Your task to perform on an android device: toggle notification dots Image 0: 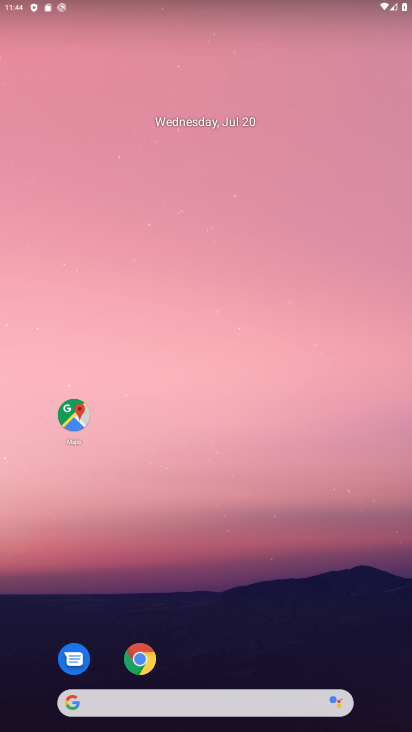
Step 0: drag from (199, 354) to (205, 3)
Your task to perform on an android device: toggle notification dots Image 1: 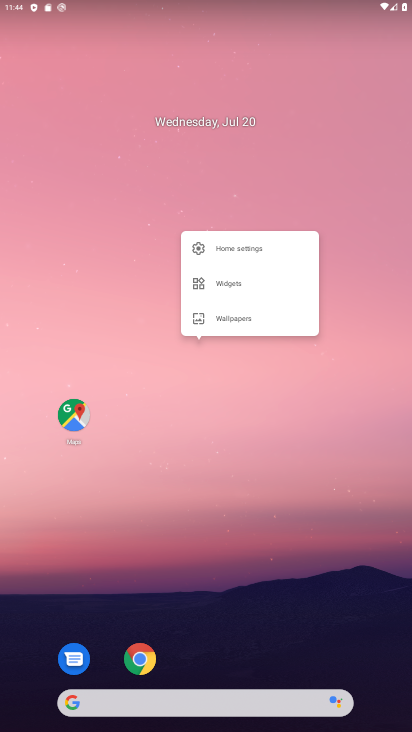
Step 1: click (233, 615)
Your task to perform on an android device: toggle notification dots Image 2: 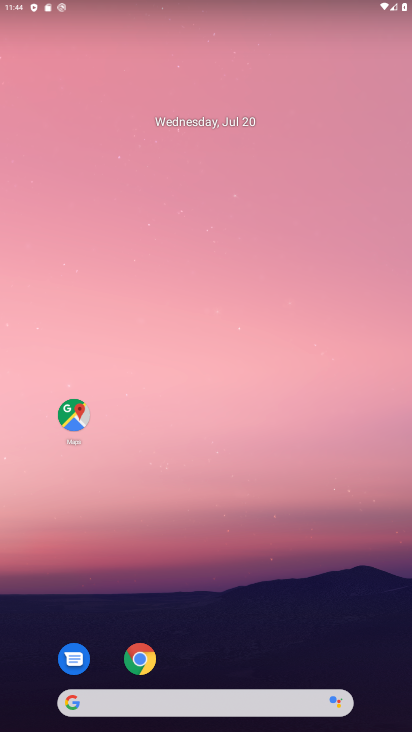
Step 2: drag from (232, 614) to (230, 20)
Your task to perform on an android device: toggle notification dots Image 3: 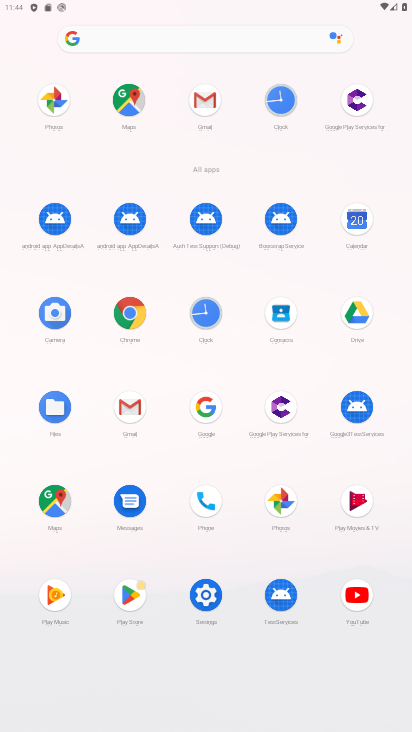
Step 3: click (215, 602)
Your task to perform on an android device: toggle notification dots Image 4: 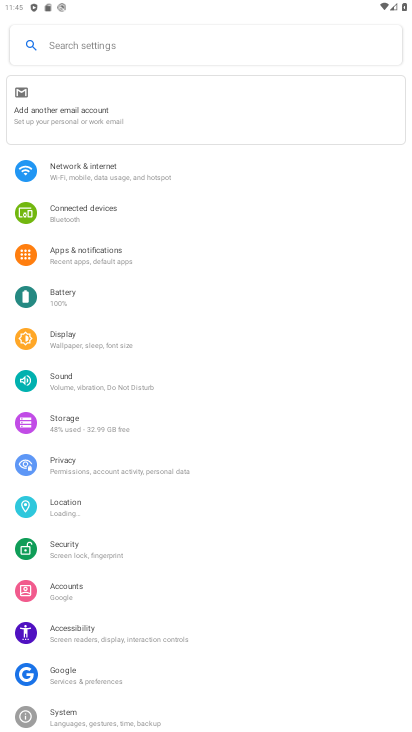
Step 4: click (72, 250)
Your task to perform on an android device: toggle notification dots Image 5: 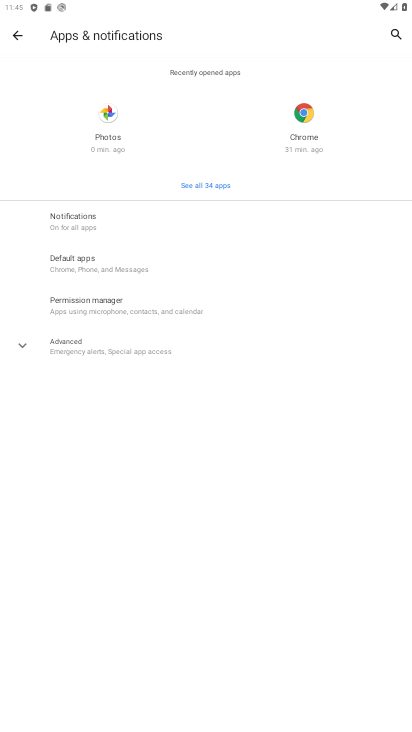
Step 5: click (88, 333)
Your task to perform on an android device: toggle notification dots Image 6: 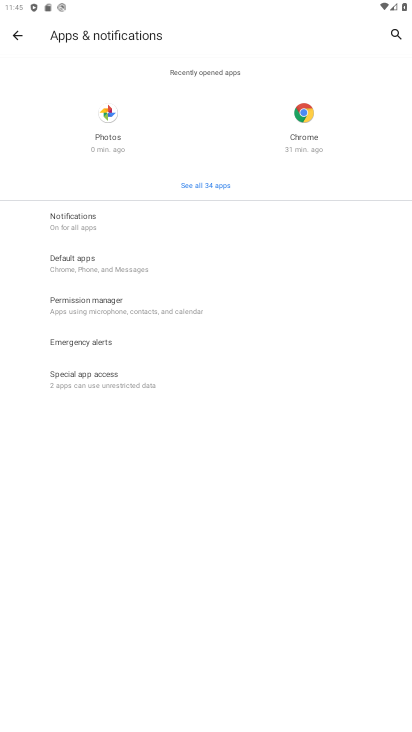
Step 6: click (105, 226)
Your task to perform on an android device: toggle notification dots Image 7: 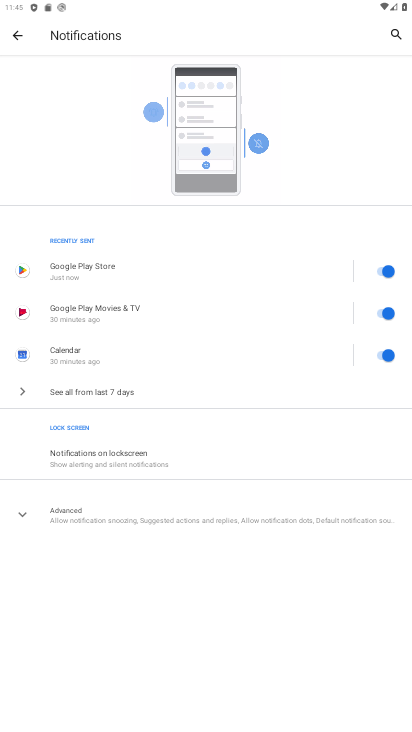
Step 7: click (195, 506)
Your task to perform on an android device: toggle notification dots Image 8: 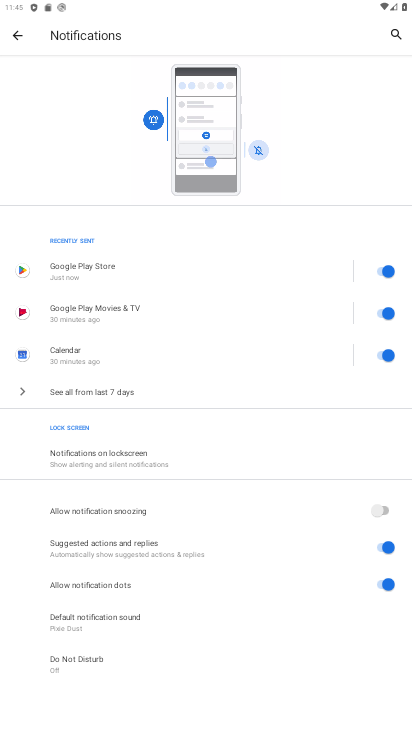
Step 8: task complete